Your task to perform on an android device: Open Chrome and go to settings Image 0: 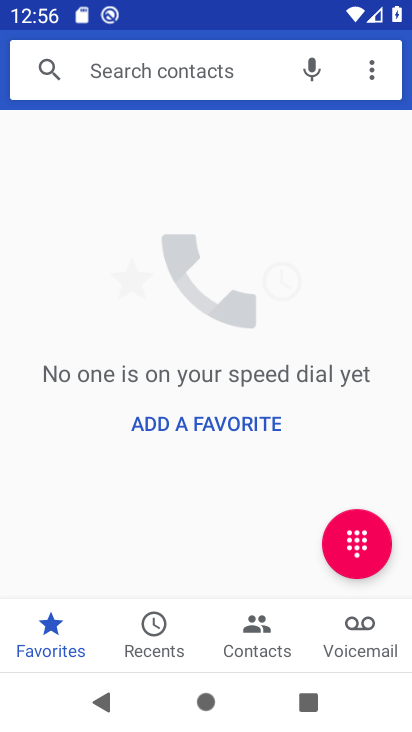
Step 0: press home button
Your task to perform on an android device: Open Chrome and go to settings Image 1: 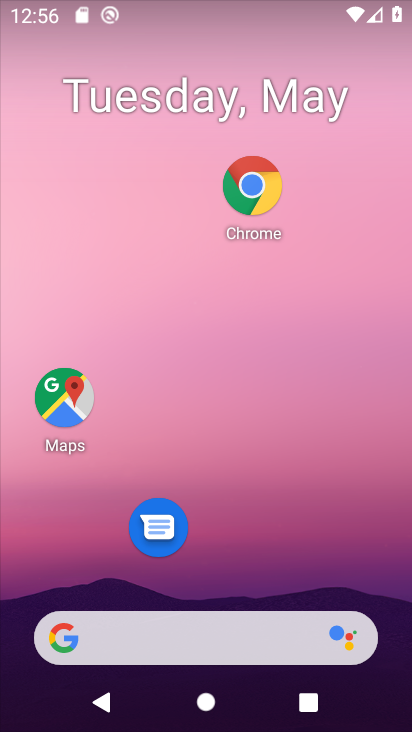
Step 1: click (258, 191)
Your task to perform on an android device: Open Chrome and go to settings Image 2: 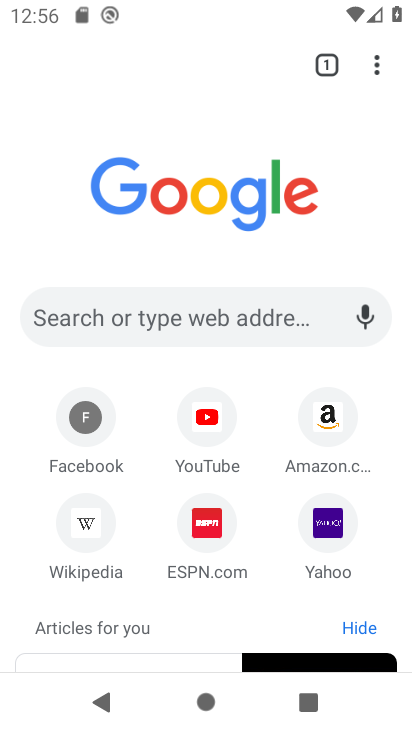
Step 2: click (377, 59)
Your task to perform on an android device: Open Chrome and go to settings Image 3: 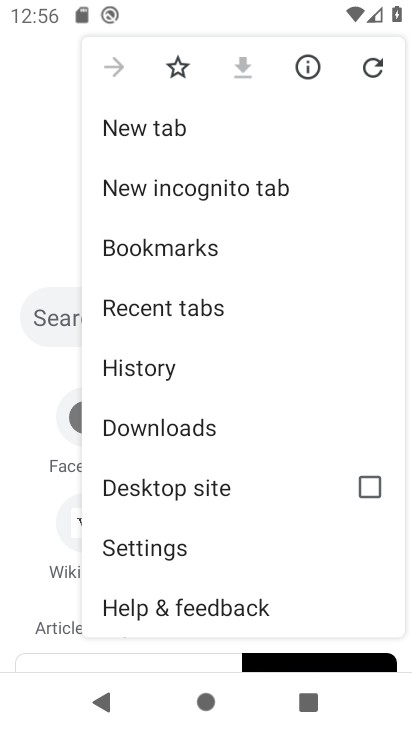
Step 3: click (157, 541)
Your task to perform on an android device: Open Chrome and go to settings Image 4: 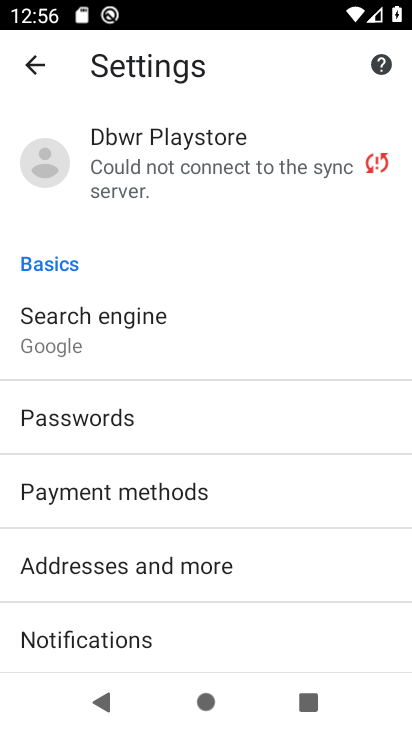
Step 4: task complete